Your task to perform on an android device: delete a single message in the gmail app Image 0: 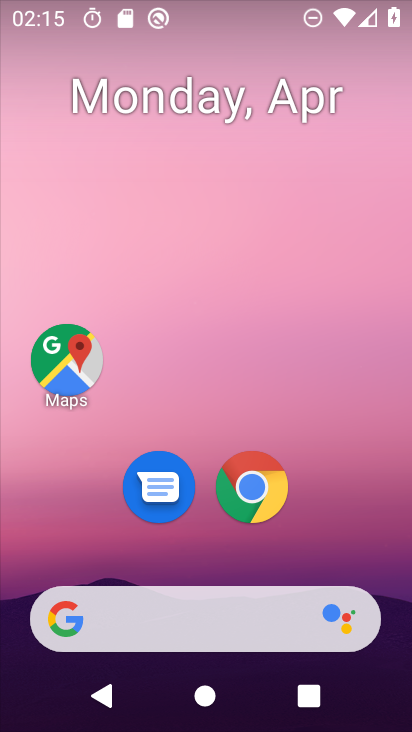
Step 0: drag from (254, 658) to (301, 136)
Your task to perform on an android device: delete a single message in the gmail app Image 1: 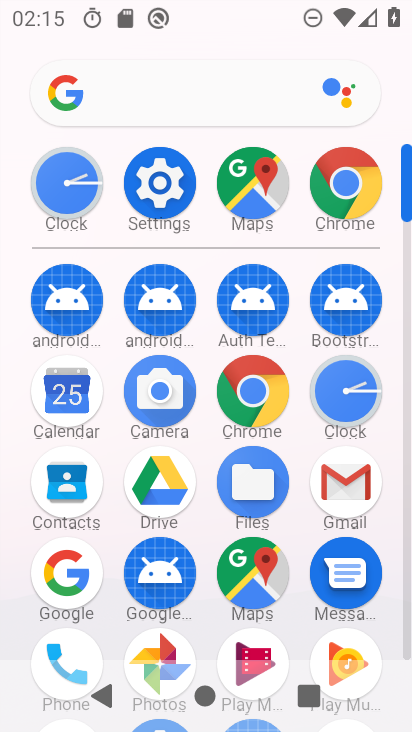
Step 1: click (339, 479)
Your task to perform on an android device: delete a single message in the gmail app Image 2: 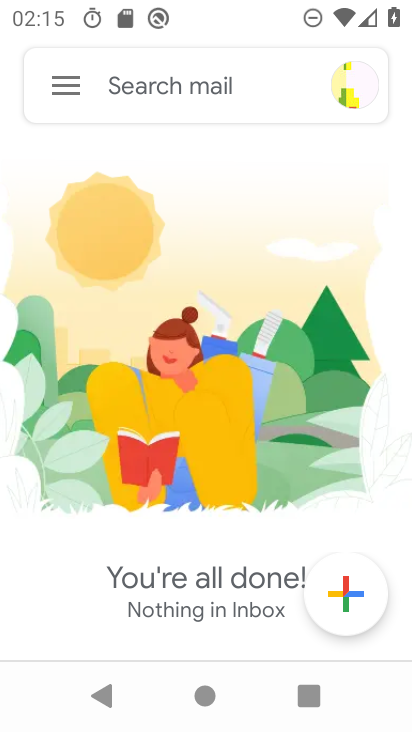
Step 2: click (73, 105)
Your task to perform on an android device: delete a single message in the gmail app Image 3: 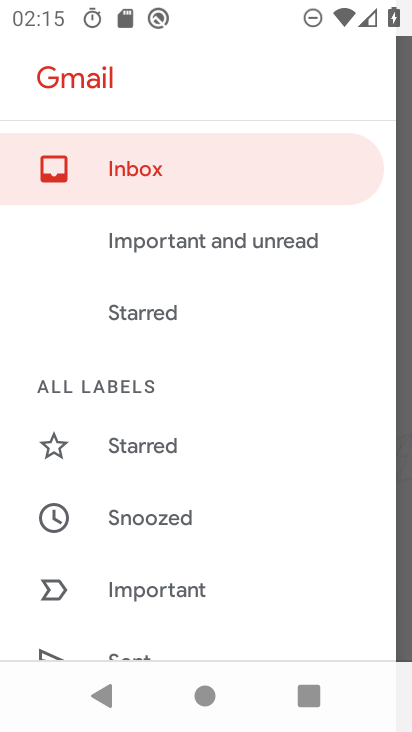
Step 3: drag from (133, 629) to (169, 357)
Your task to perform on an android device: delete a single message in the gmail app Image 4: 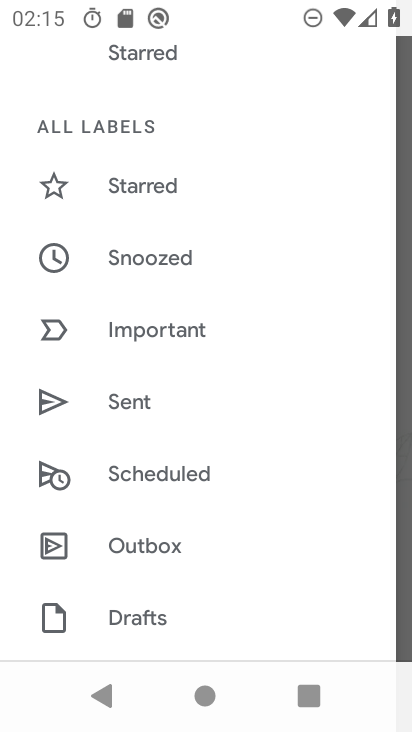
Step 4: drag from (177, 546) to (170, 326)
Your task to perform on an android device: delete a single message in the gmail app Image 5: 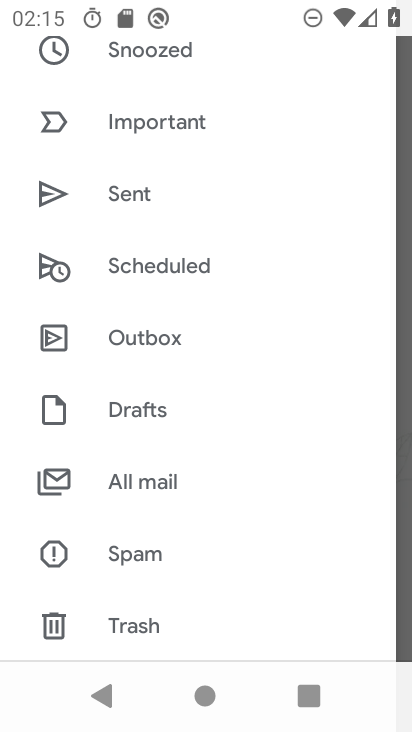
Step 5: click (159, 479)
Your task to perform on an android device: delete a single message in the gmail app Image 6: 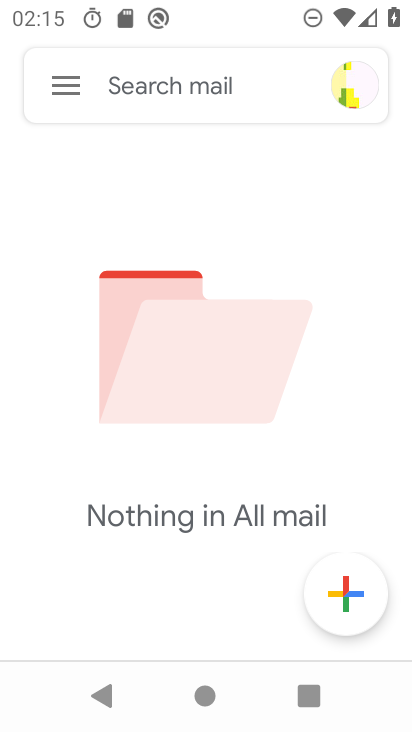
Step 6: task complete